Your task to perform on an android device: turn off location Image 0: 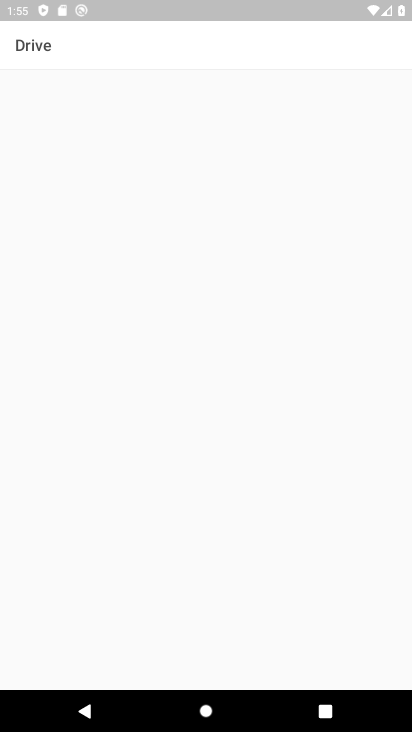
Step 0: press home button
Your task to perform on an android device: turn off location Image 1: 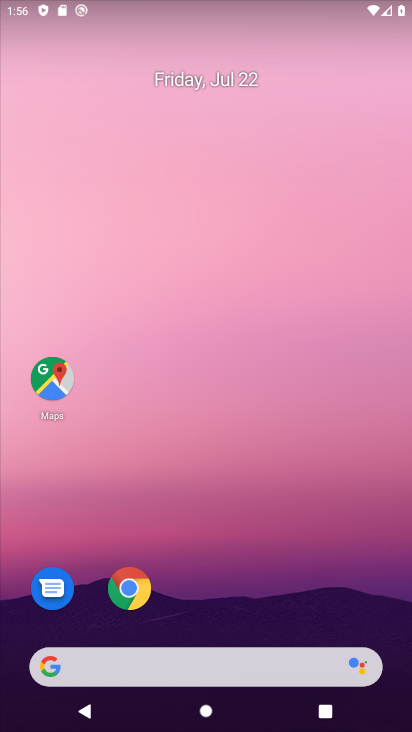
Step 1: drag from (306, 499) to (158, 74)
Your task to perform on an android device: turn off location Image 2: 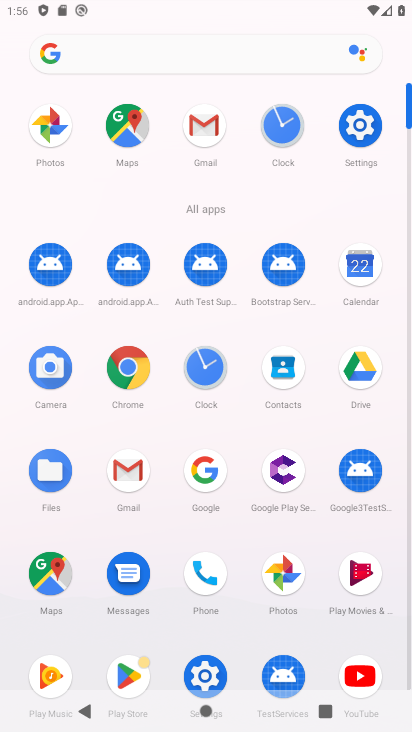
Step 2: click (358, 128)
Your task to perform on an android device: turn off location Image 3: 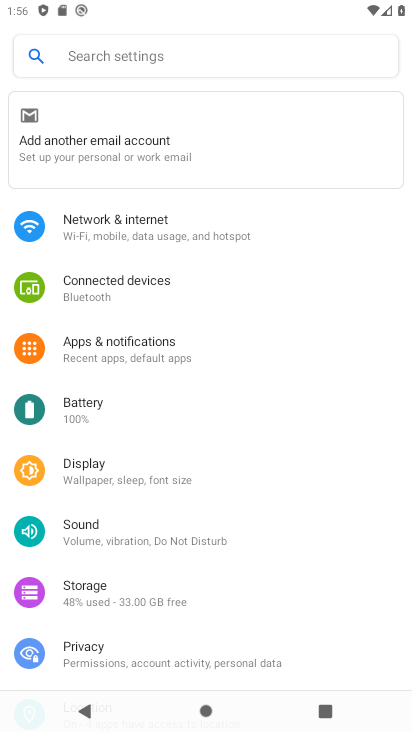
Step 3: drag from (187, 616) to (116, 278)
Your task to perform on an android device: turn off location Image 4: 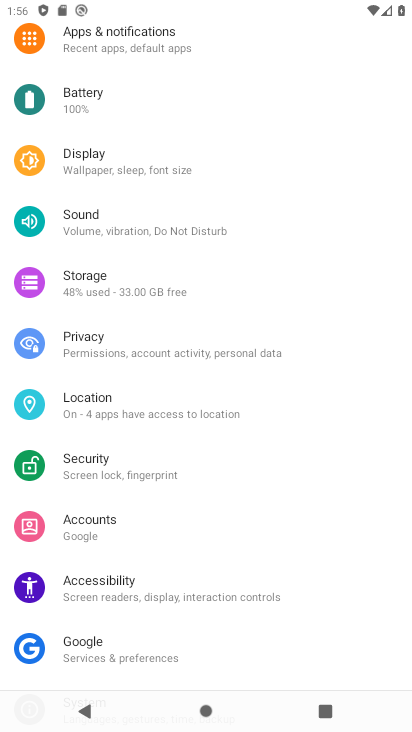
Step 4: click (172, 412)
Your task to perform on an android device: turn off location Image 5: 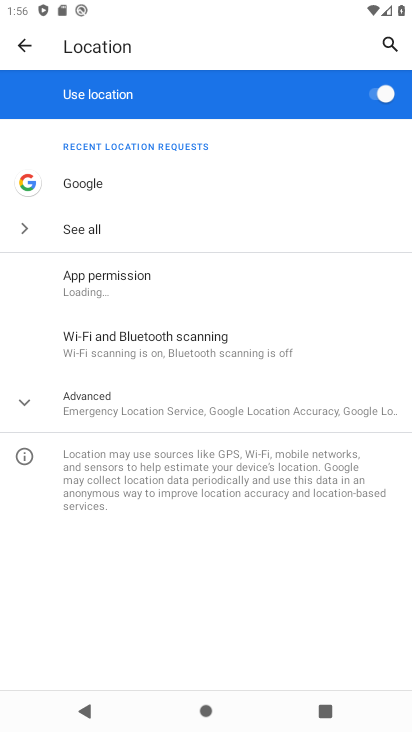
Step 5: click (384, 109)
Your task to perform on an android device: turn off location Image 6: 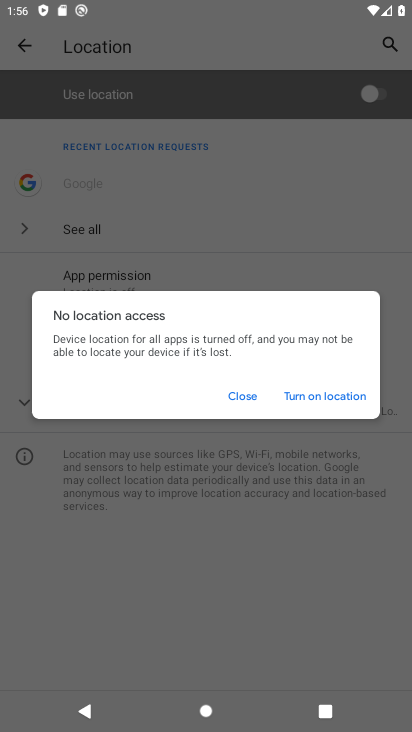
Step 6: task complete